Your task to perform on an android device: Open sound settings Image 0: 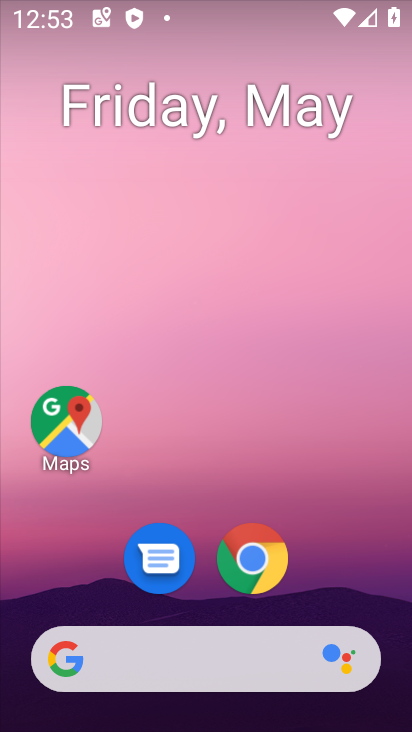
Step 0: drag from (363, 609) to (260, 6)
Your task to perform on an android device: Open sound settings Image 1: 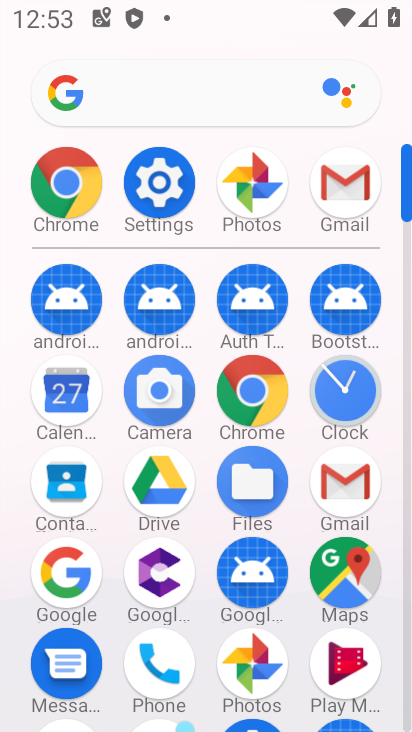
Step 1: click (148, 183)
Your task to perform on an android device: Open sound settings Image 2: 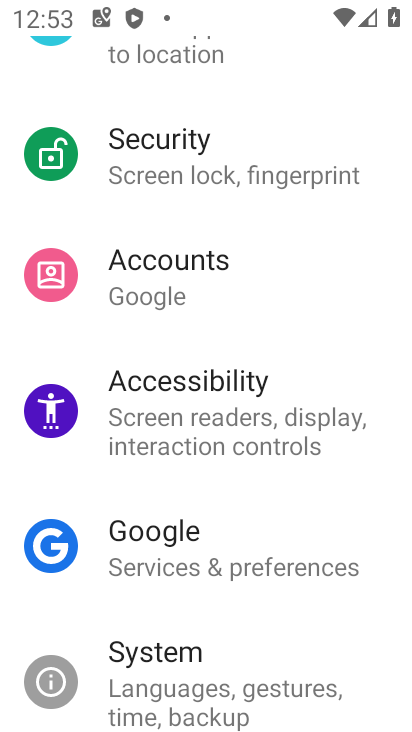
Step 2: drag from (205, 103) to (147, 640)
Your task to perform on an android device: Open sound settings Image 3: 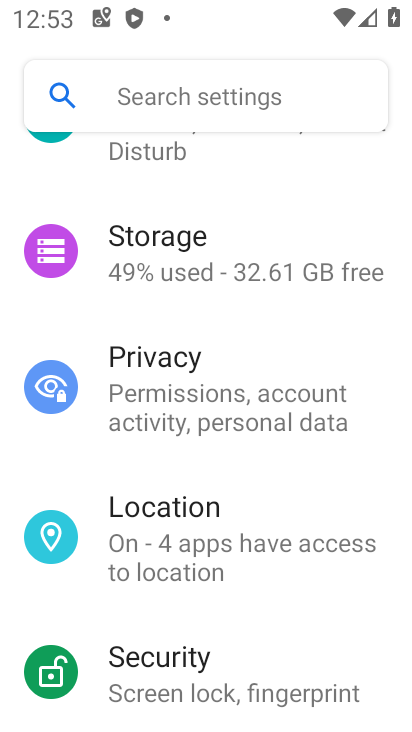
Step 3: drag from (183, 326) to (200, 666)
Your task to perform on an android device: Open sound settings Image 4: 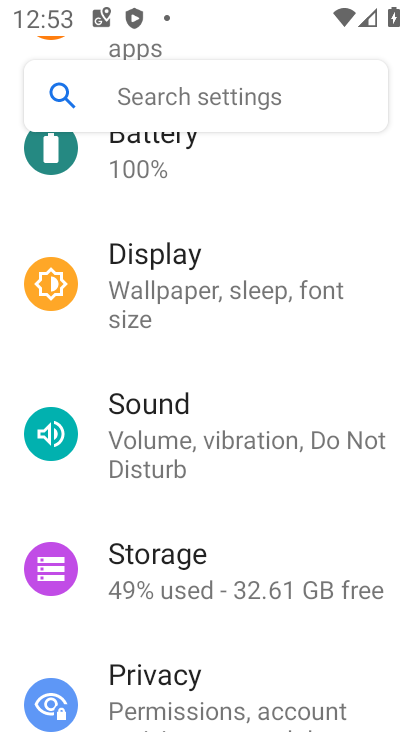
Step 4: click (181, 457)
Your task to perform on an android device: Open sound settings Image 5: 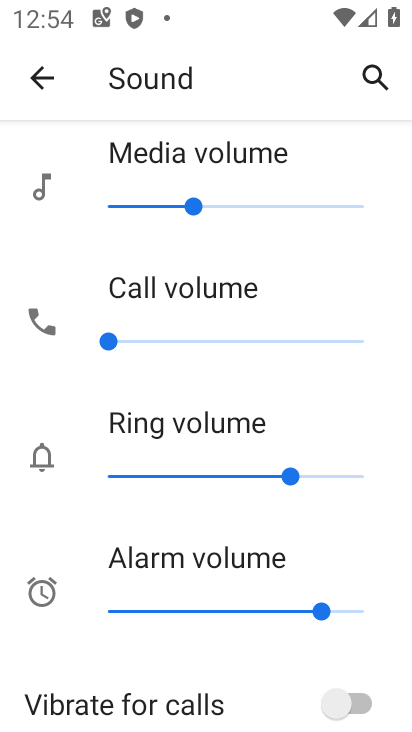
Step 5: task complete